Your task to perform on an android device: Go to Google maps Image 0: 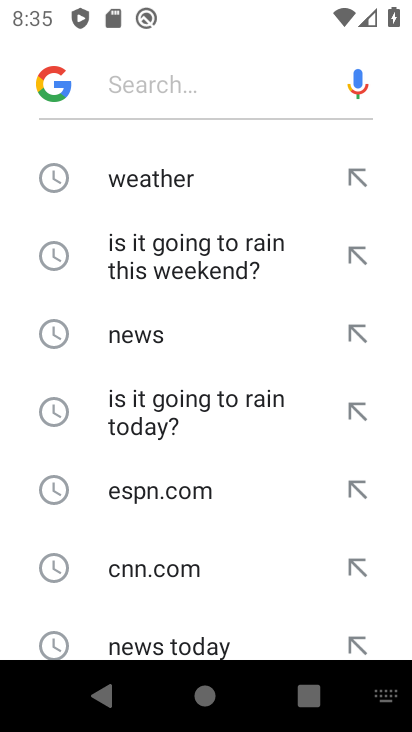
Step 0: press home button
Your task to perform on an android device: Go to Google maps Image 1: 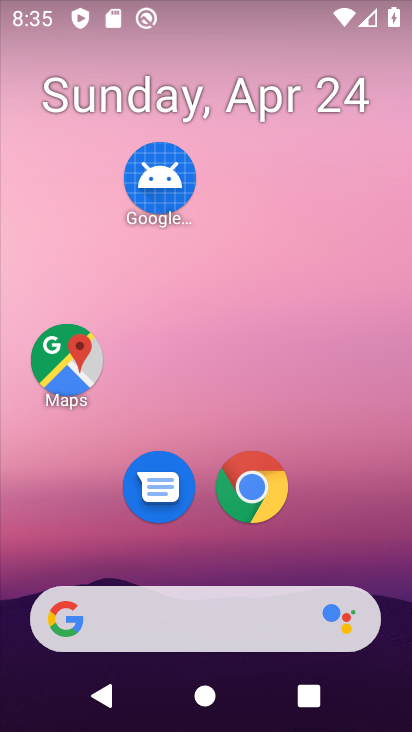
Step 1: click (79, 357)
Your task to perform on an android device: Go to Google maps Image 2: 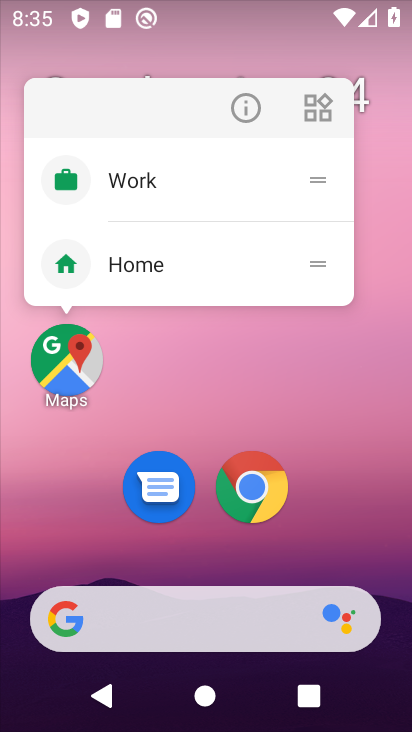
Step 2: click (76, 359)
Your task to perform on an android device: Go to Google maps Image 3: 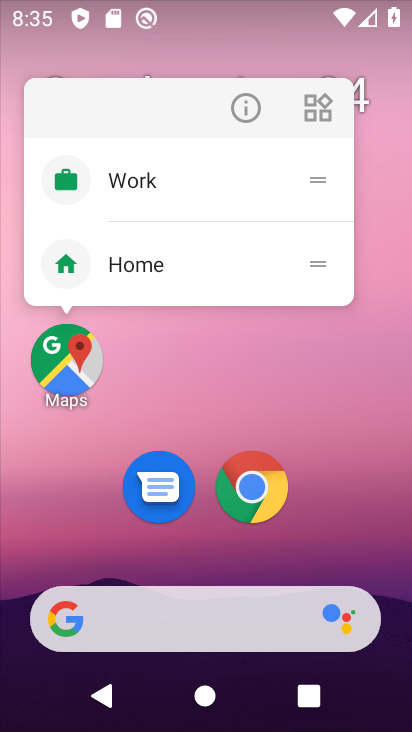
Step 3: click (76, 359)
Your task to perform on an android device: Go to Google maps Image 4: 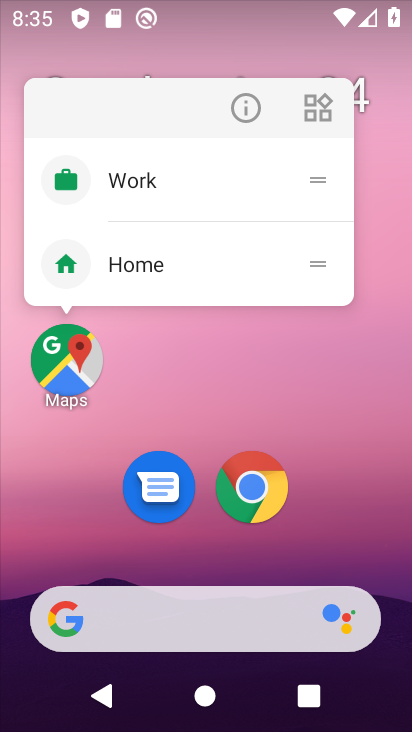
Step 4: click (167, 371)
Your task to perform on an android device: Go to Google maps Image 5: 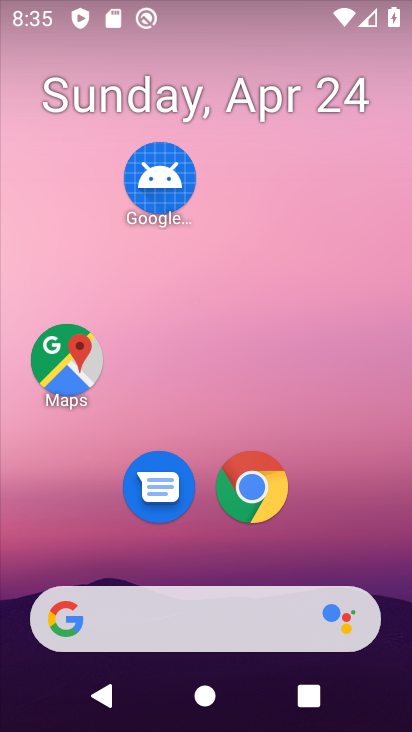
Step 5: click (51, 357)
Your task to perform on an android device: Go to Google maps Image 6: 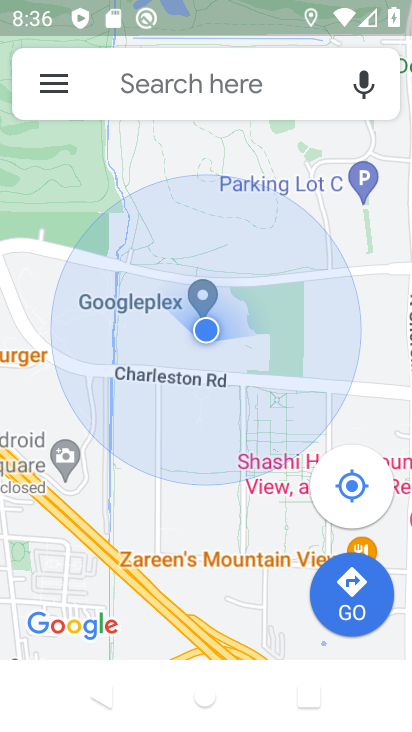
Step 6: task complete